Your task to perform on an android device: turn on translation in the chrome app Image 0: 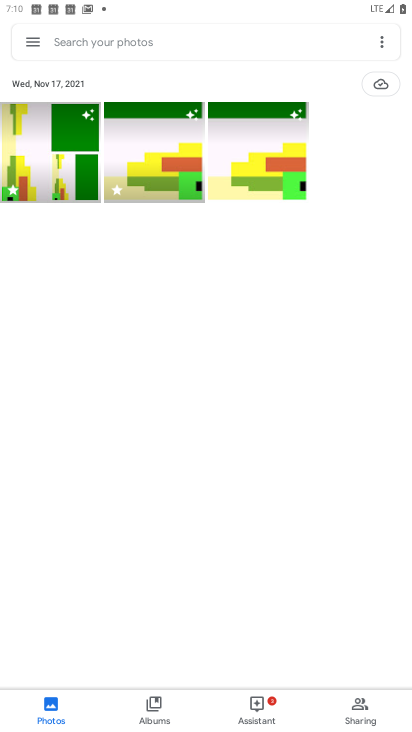
Step 0: press home button
Your task to perform on an android device: turn on translation in the chrome app Image 1: 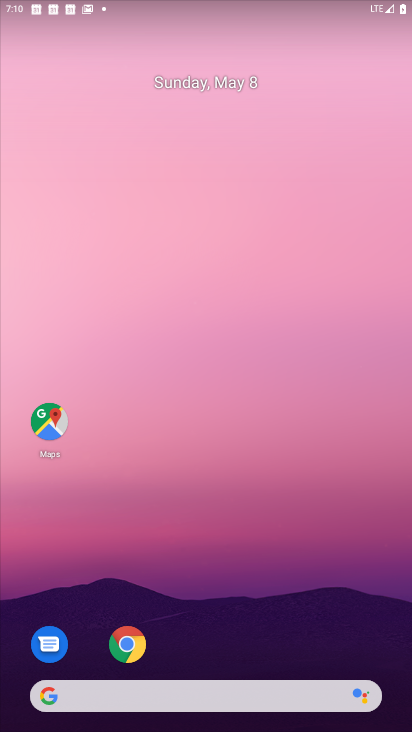
Step 1: drag from (336, 638) to (271, 358)
Your task to perform on an android device: turn on translation in the chrome app Image 2: 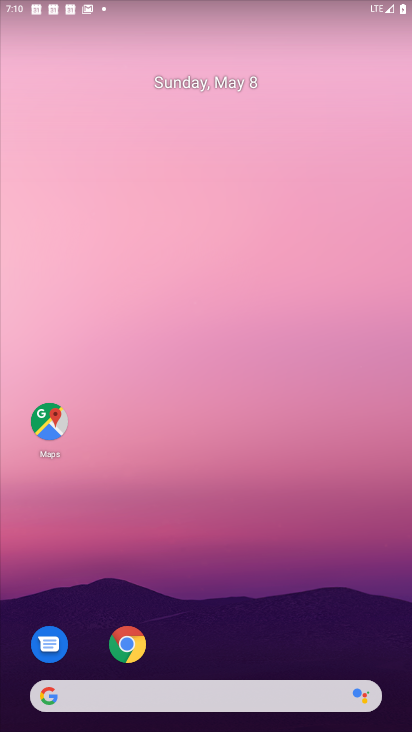
Step 2: drag from (291, 633) to (252, 58)
Your task to perform on an android device: turn on translation in the chrome app Image 3: 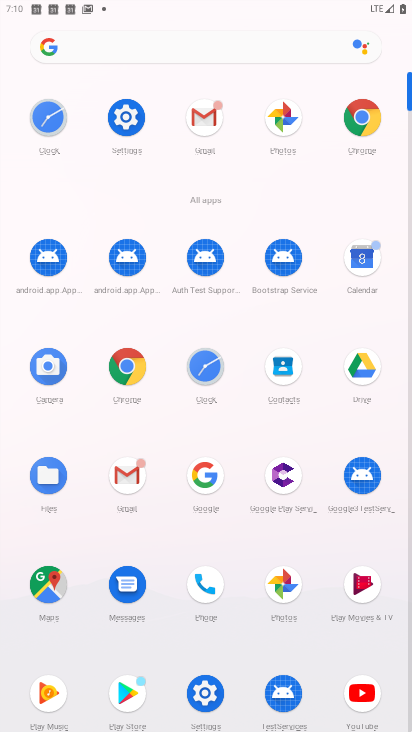
Step 3: click (112, 375)
Your task to perform on an android device: turn on translation in the chrome app Image 4: 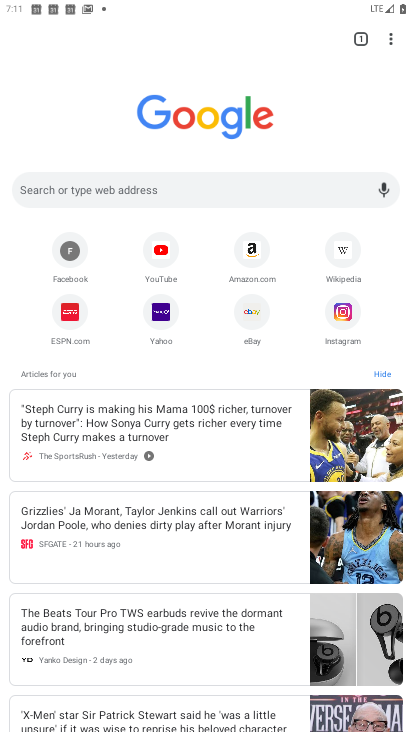
Step 4: click (385, 32)
Your task to perform on an android device: turn on translation in the chrome app Image 5: 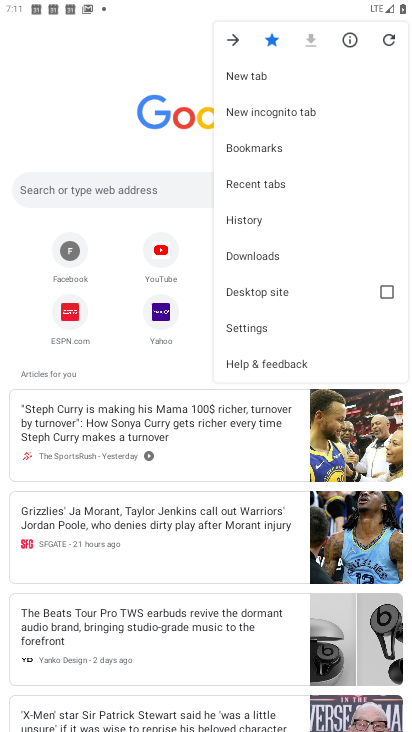
Step 5: click (259, 321)
Your task to perform on an android device: turn on translation in the chrome app Image 6: 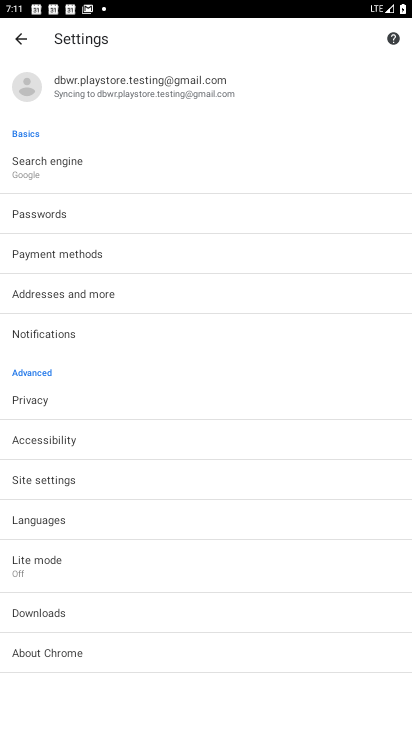
Step 6: click (133, 525)
Your task to perform on an android device: turn on translation in the chrome app Image 7: 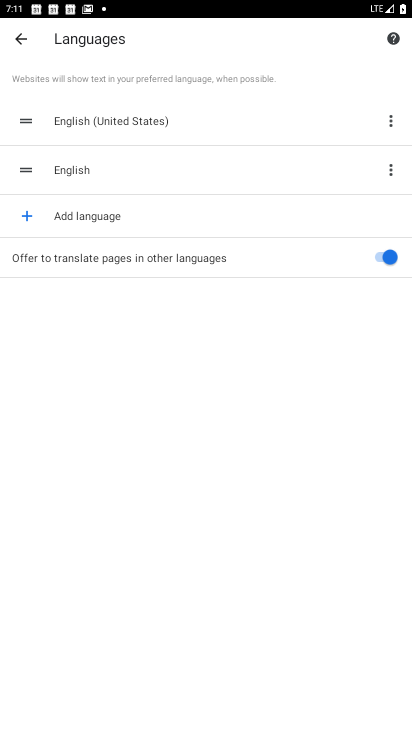
Step 7: click (360, 259)
Your task to perform on an android device: turn on translation in the chrome app Image 8: 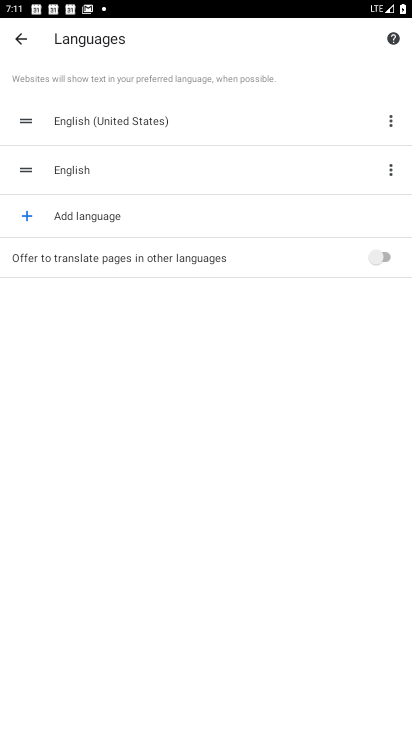
Step 8: click (372, 266)
Your task to perform on an android device: turn on translation in the chrome app Image 9: 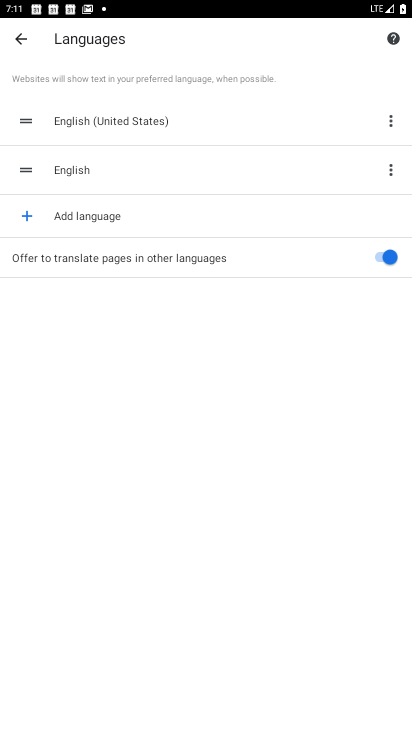
Step 9: task complete